Your task to perform on an android device: Go to Google maps Image 0: 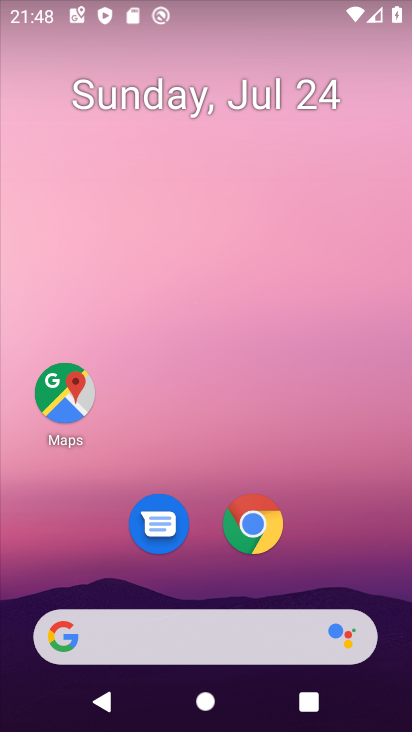
Step 0: click (61, 397)
Your task to perform on an android device: Go to Google maps Image 1: 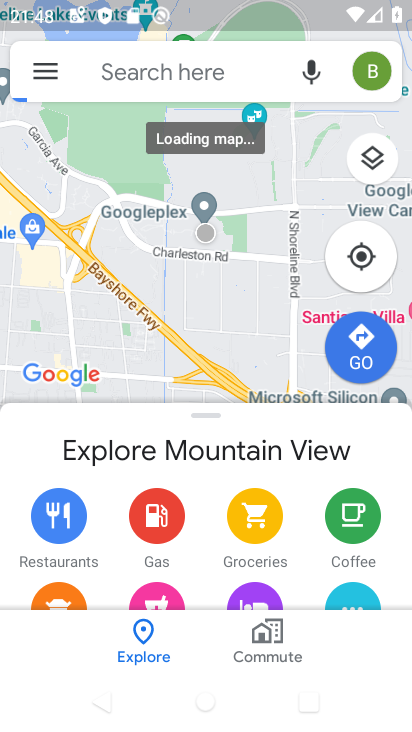
Step 1: task complete